Your task to perform on an android device: uninstall "Google Keep" Image 0: 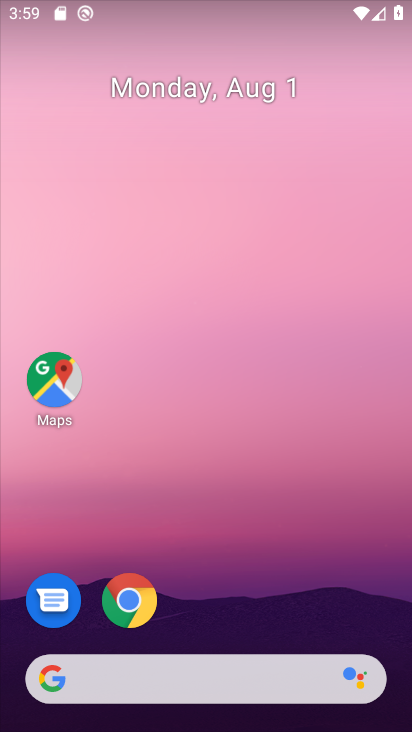
Step 0: drag from (258, 600) to (301, 56)
Your task to perform on an android device: uninstall "Google Keep" Image 1: 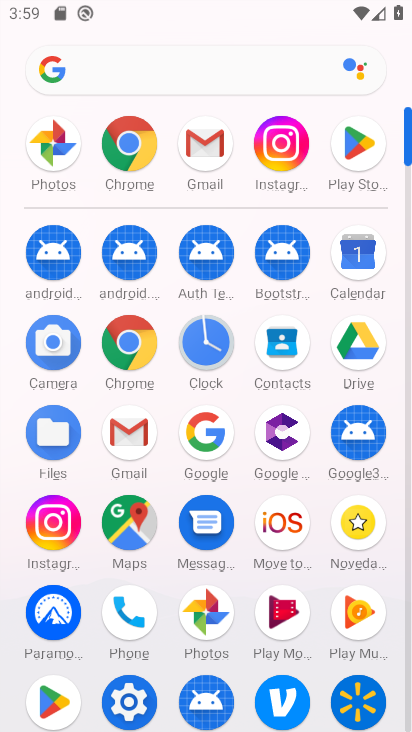
Step 1: click (251, 61)
Your task to perform on an android device: uninstall "Google Keep" Image 2: 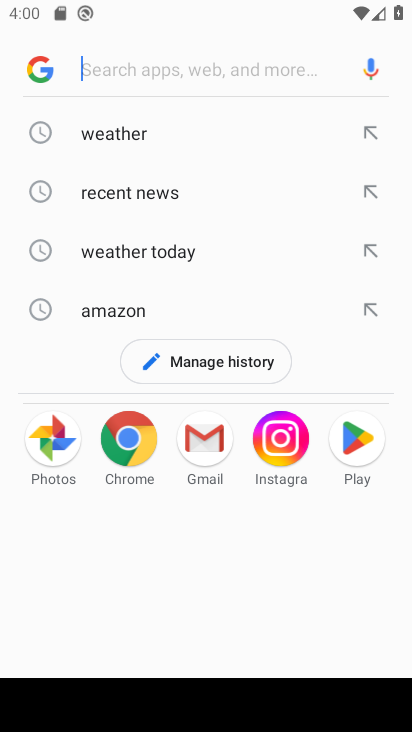
Step 2: click (362, 437)
Your task to perform on an android device: uninstall "Google Keep" Image 3: 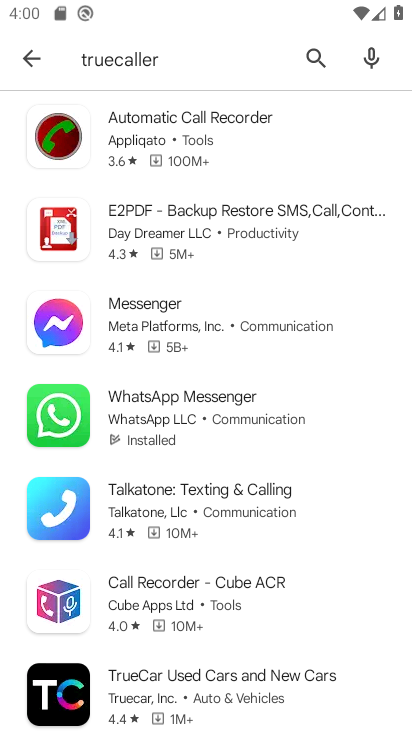
Step 3: click (193, 57)
Your task to perform on an android device: uninstall "Google Keep" Image 4: 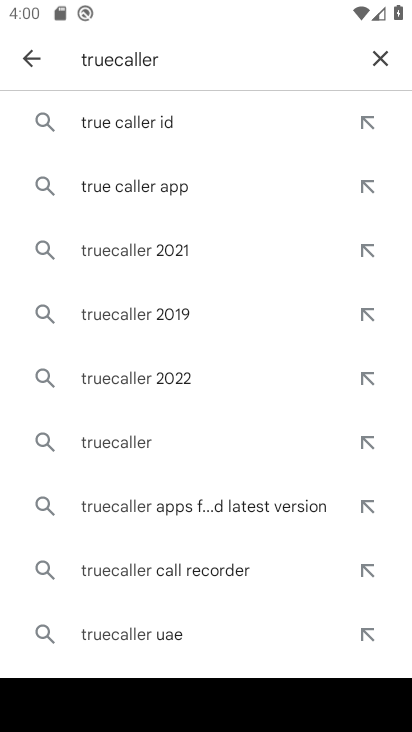
Step 4: click (386, 55)
Your task to perform on an android device: uninstall "Google Keep" Image 5: 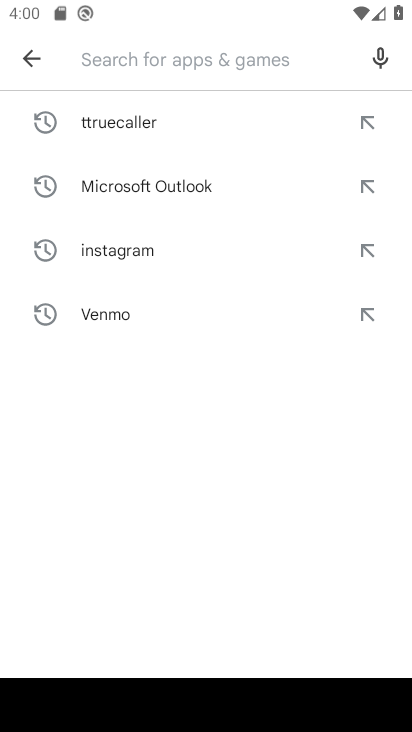
Step 5: type "Google Keep"
Your task to perform on an android device: uninstall "Google Keep" Image 6: 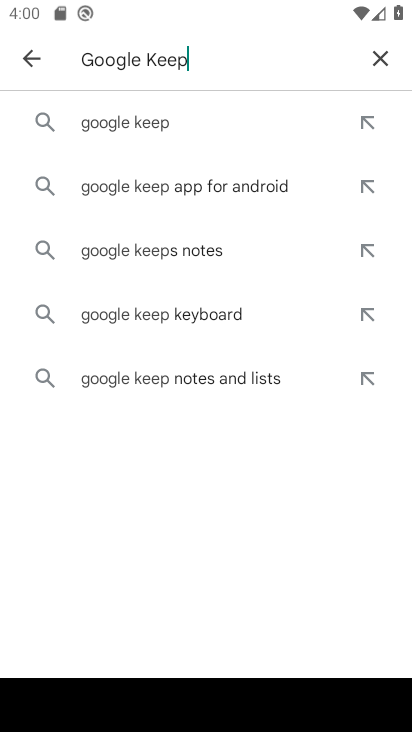
Step 6: click (132, 128)
Your task to perform on an android device: uninstall "Google Keep" Image 7: 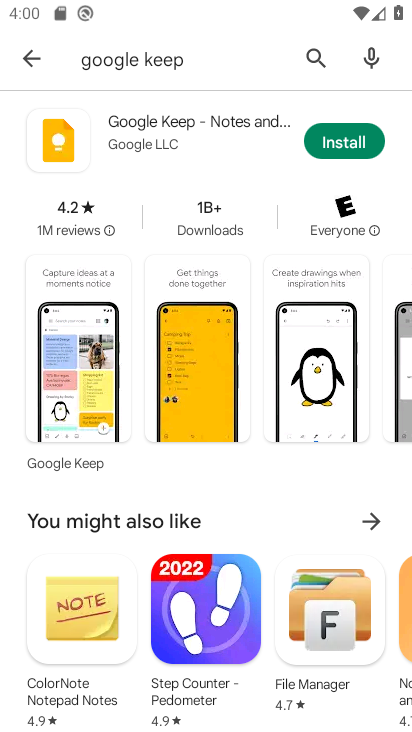
Step 7: click (214, 143)
Your task to perform on an android device: uninstall "Google Keep" Image 8: 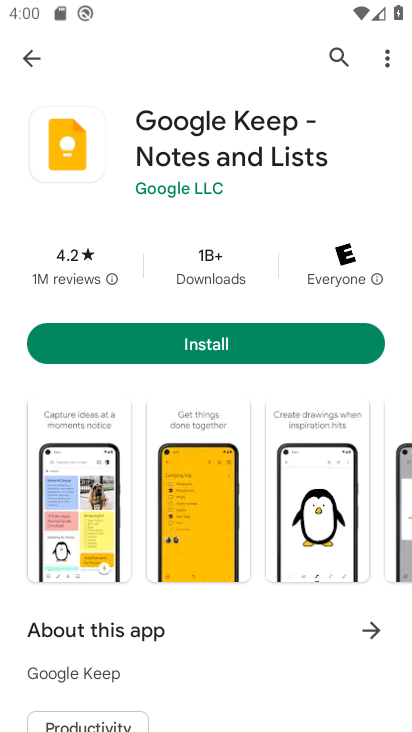
Step 8: task complete